Your task to perform on an android device: What's the news in Uruguay? Image 0: 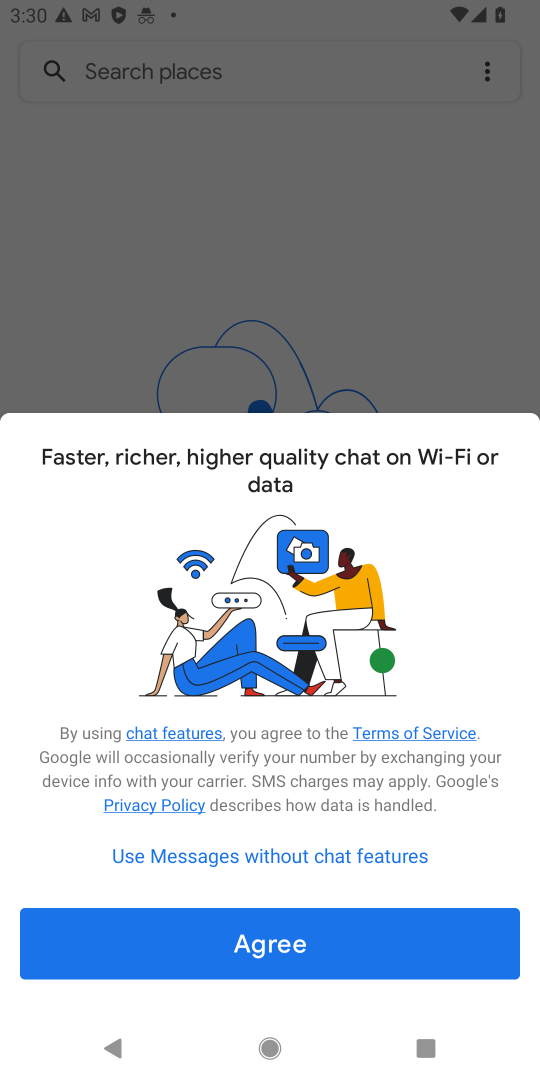
Step 0: press home button
Your task to perform on an android device: What's the news in Uruguay? Image 1: 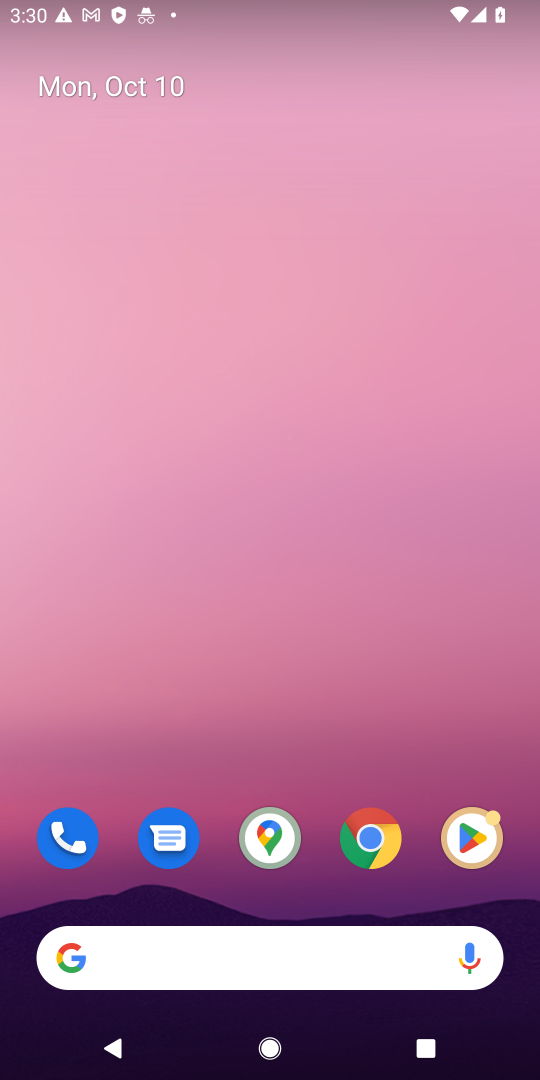
Step 1: click (356, 846)
Your task to perform on an android device: What's the news in Uruguay? Image 2: 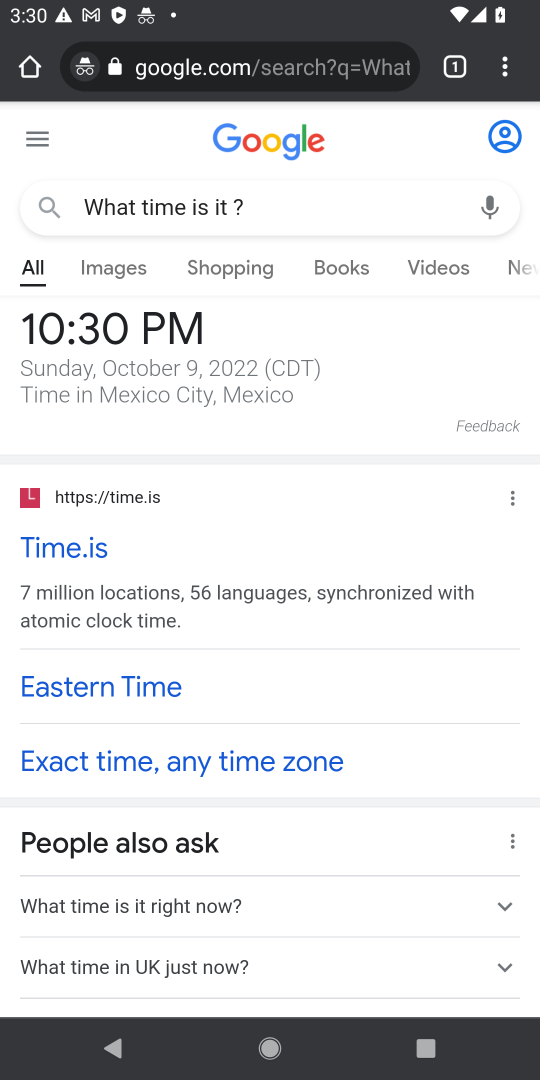
Step 2: click (256, 60)
Your task to perform on an android device: What's the news in Uruguay? Image 3: 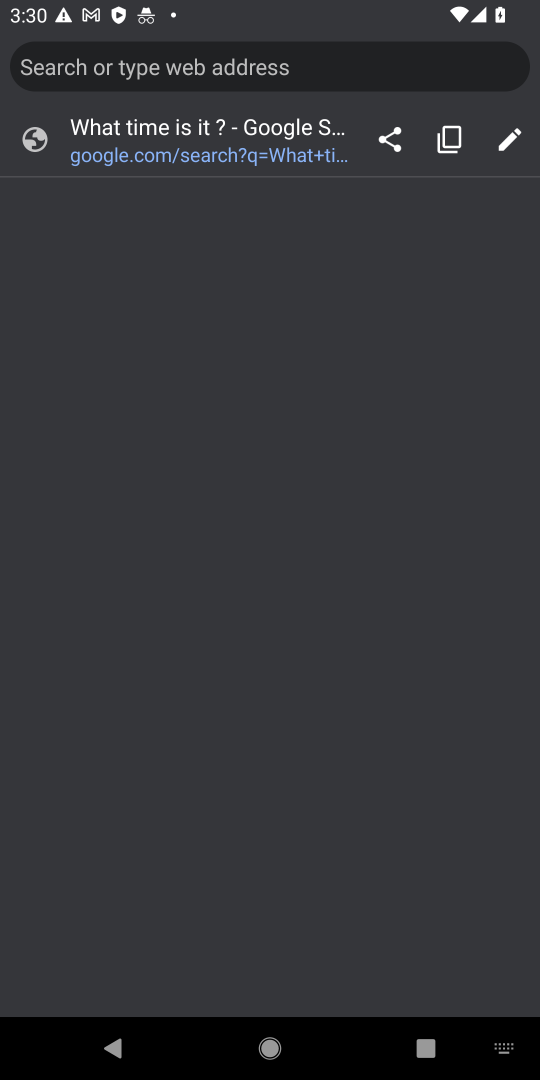
Step 3: type "What's the news in Uruguay?"
Your task to perform on an android device: What's the news in Uruguay? Image 4: 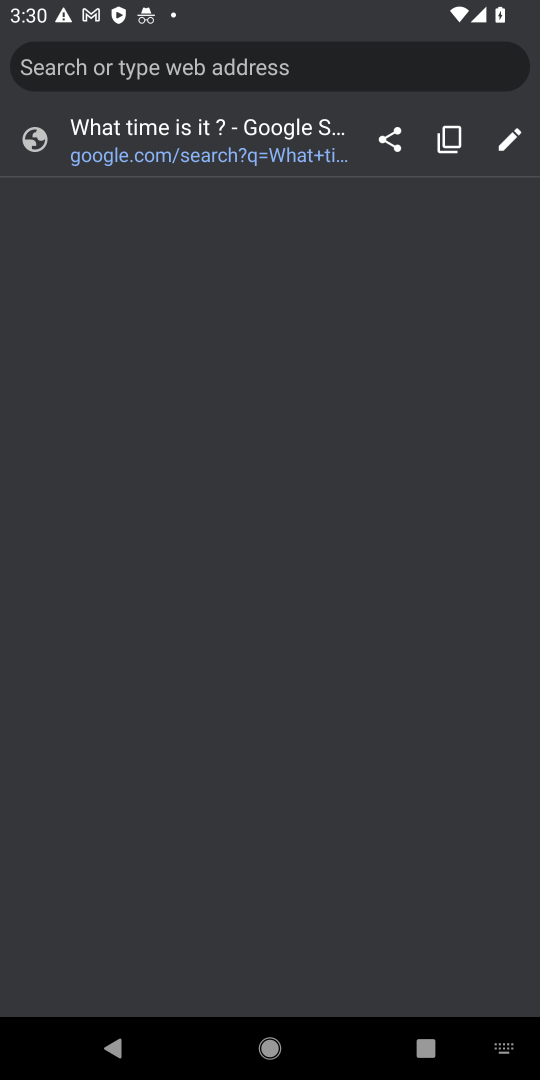
Step 4: click (334, 57)
Your task to perform on an android device: What's the news in Uruguay? Image 5: 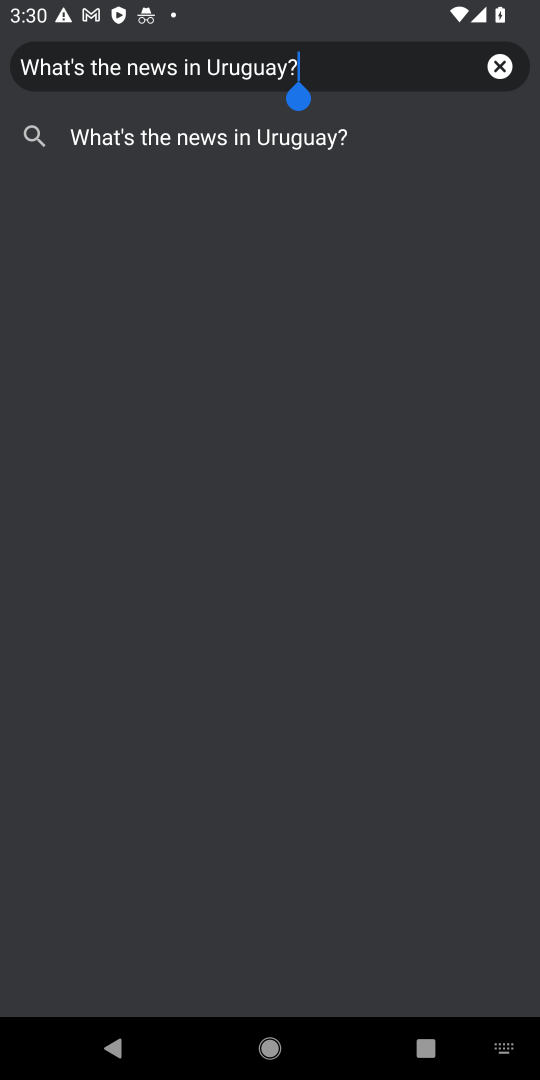
Step 5: click (343, 151)
Your task to perform on an android device: What's the news in Uruguay? Image 6: 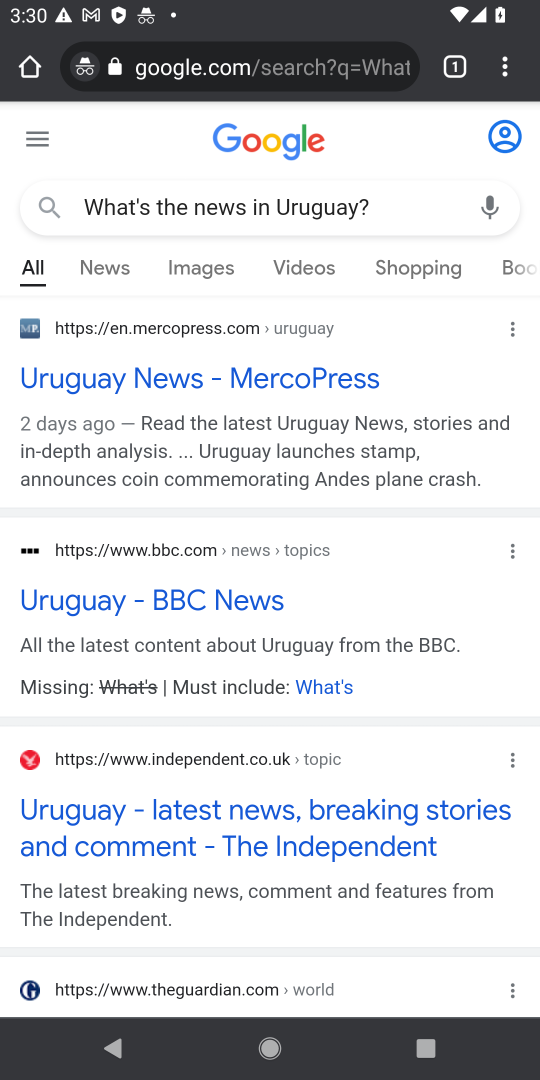
Step 6: click (273, 383)
Your task to perform on an android device: What's the news in Uruguay? Image 7: 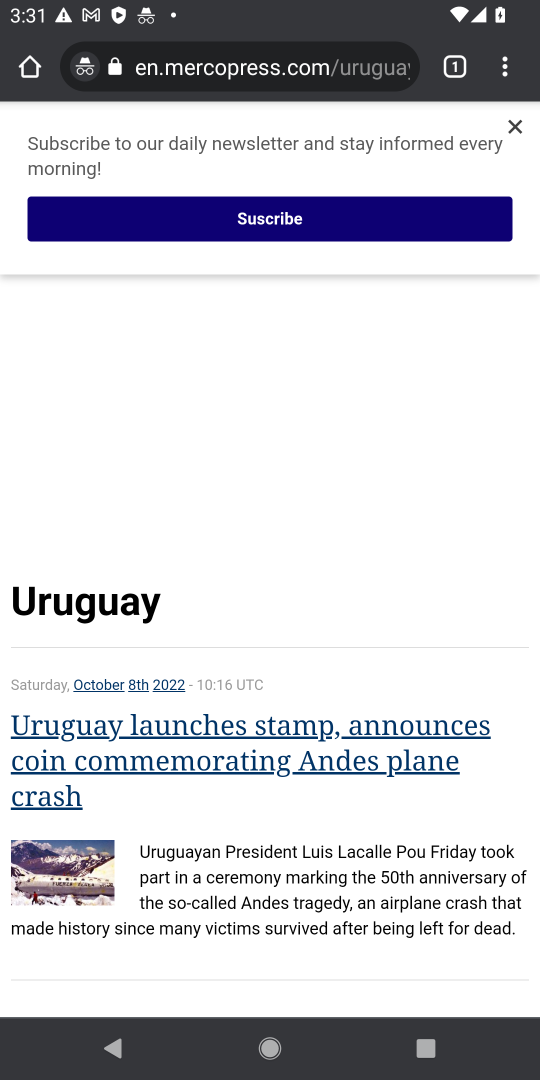
Step 7: task complete